Your task to perform on an android device: What's the weather going to be tomorrow? Image 0: 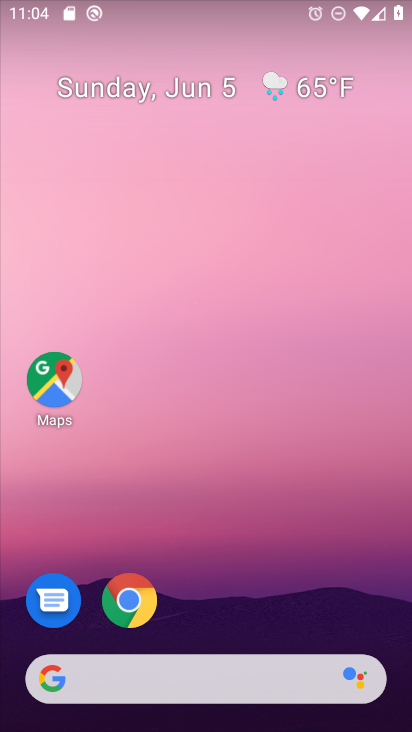
Step 0: drag from (377, 620) to (268, 18)
Your task to perform on an android device: What's the weather going to be tomorrow? Image 1: 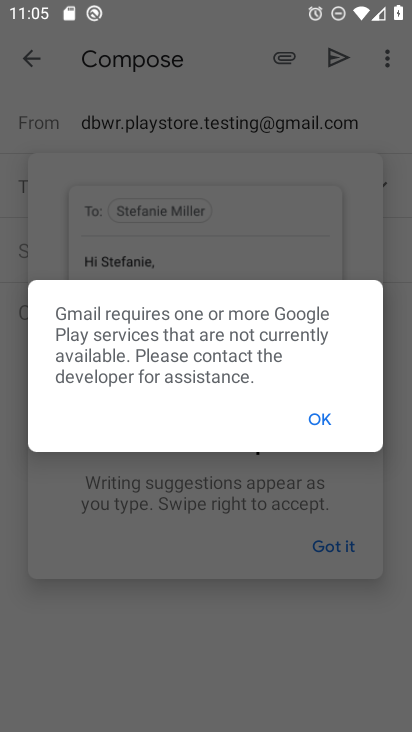
Step 1: press home button
Your task to perform on an android device: What's the weather going to be tomorrow? Image 2: 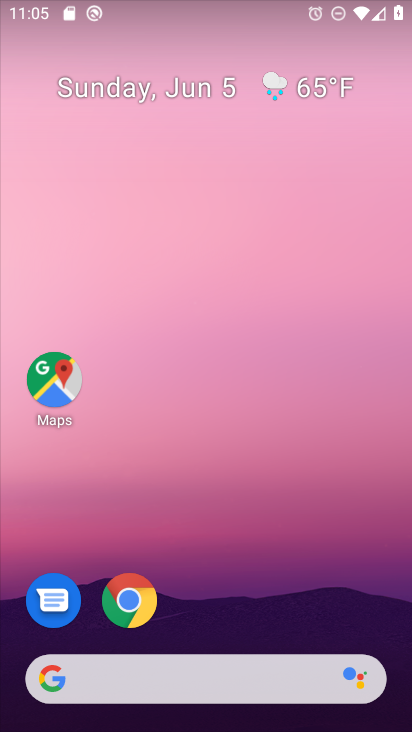
Step 2: drag from (390, 626) to (213, 44)
Your task to perform on an android device: What's the weather going to be tomorrow? Image 3: 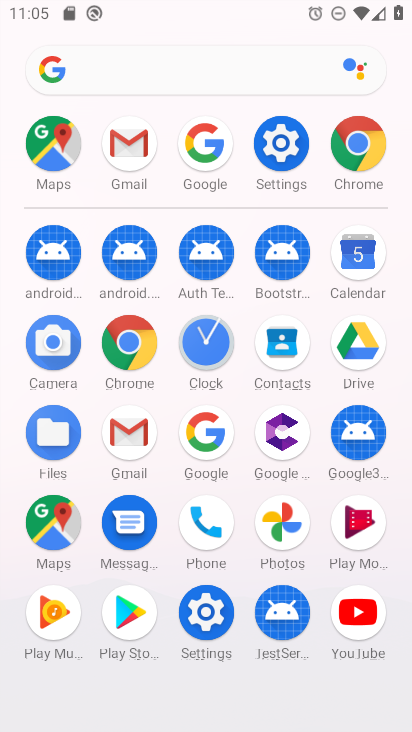
Step 3: click (214, 451)
Your task to perform on an android device: What's the weather going to be tomorrow? Image 4: 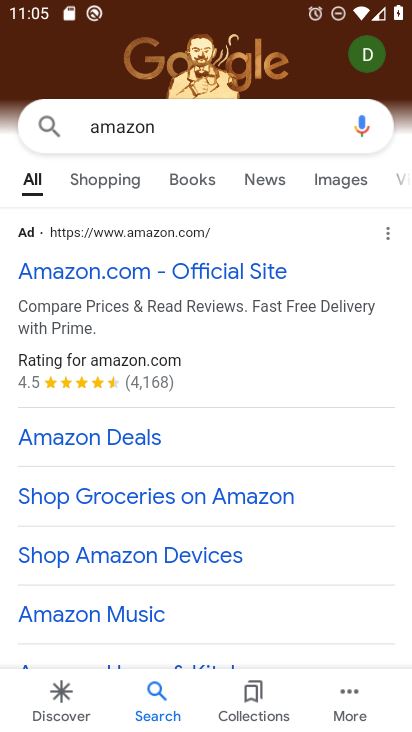
Step 4: press back button
Your task to perform on an android device: What's the weather going to be tomorrow? Image 5: 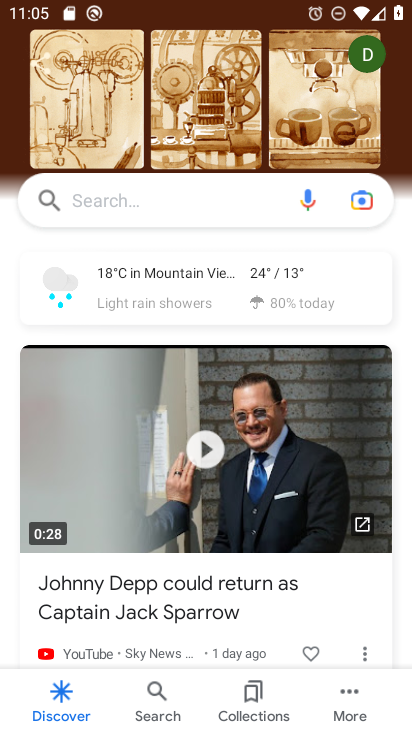
Step 5: click (139, 203)
Your task to perform on an android device: What's the weather going to be tomorrow? Image 6: 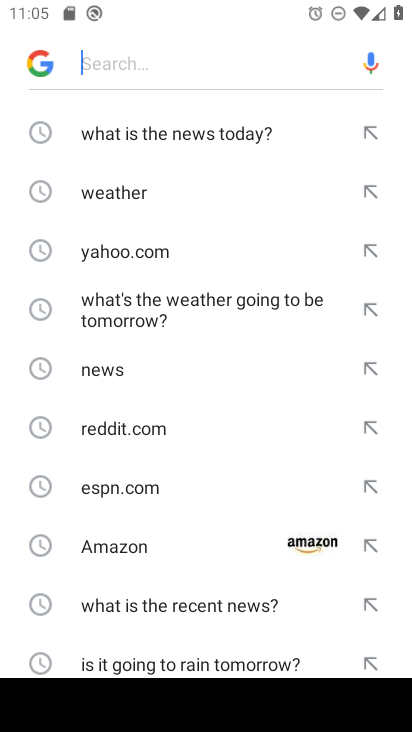
Step 6: click (234, 320)
Your task to perform on an android device: What's the weather going to be tomorrow? Image 7: 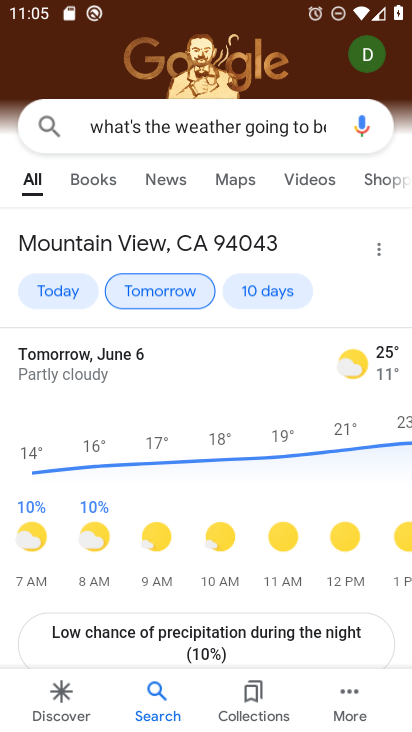
Step 7: task complete